Your task to perform on an android device: all mails in gmail Image 0: 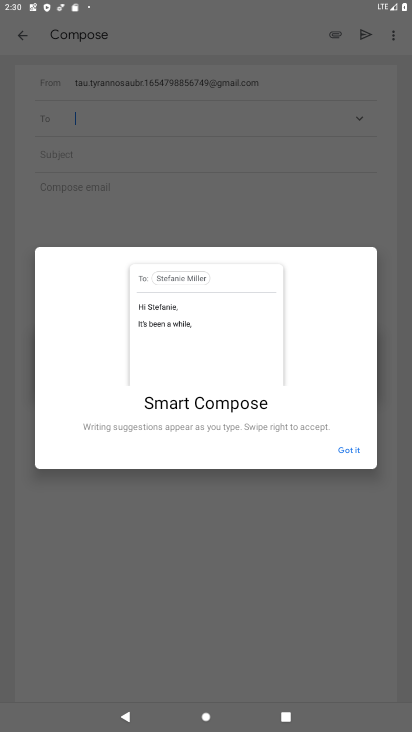
Step 0: press home button
Your task to perform on an android device: all mails in gmail Image 1: 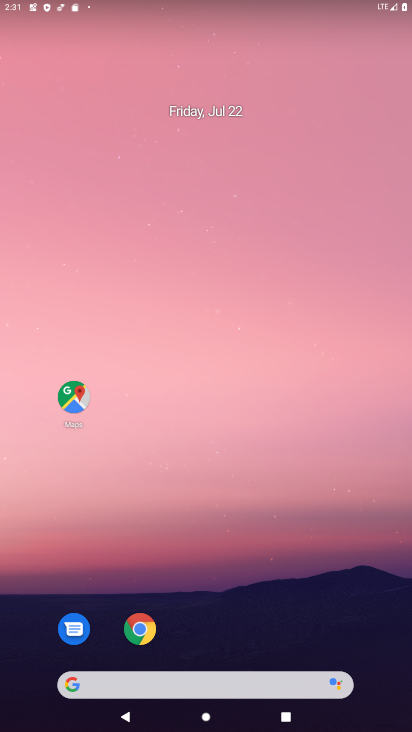
Step 1: drag from (204, 686) to (172, 21)
Your task to perform on an android device: all mails in gmail Image 2: 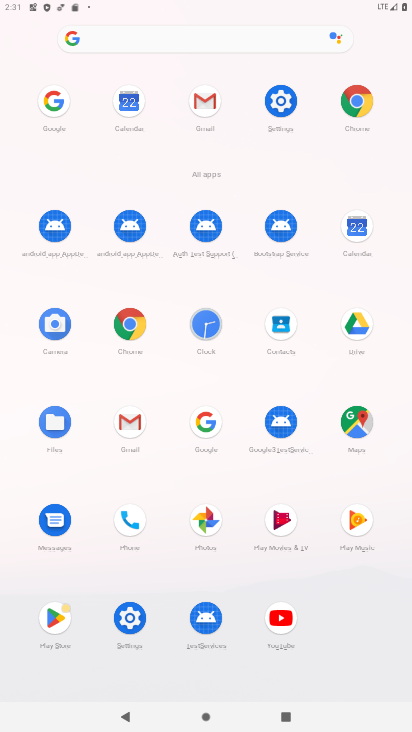
Step 2: click (129, 424)
Your task to perform on an android device: all mails in gmail Image 3: 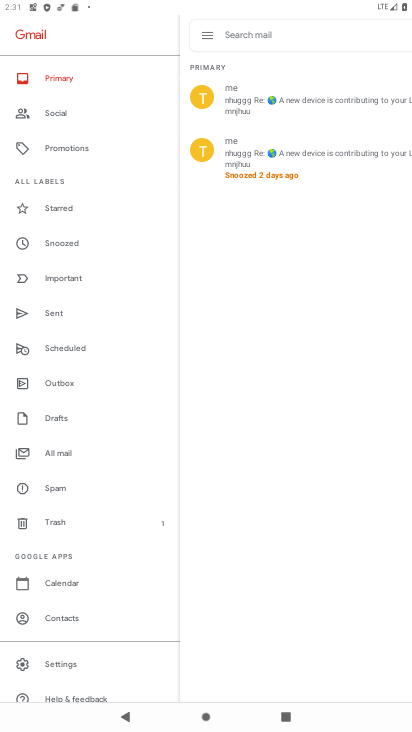
Step 3: click (76, 450)
Your task to perform on an android device: all mails in gmail Image 4: 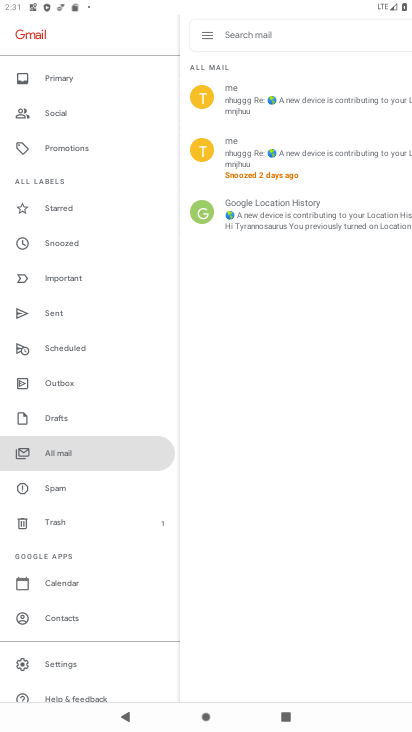
Step 4: task complete